Your task to perform on an android device: find photos in the google photos app Image 0: 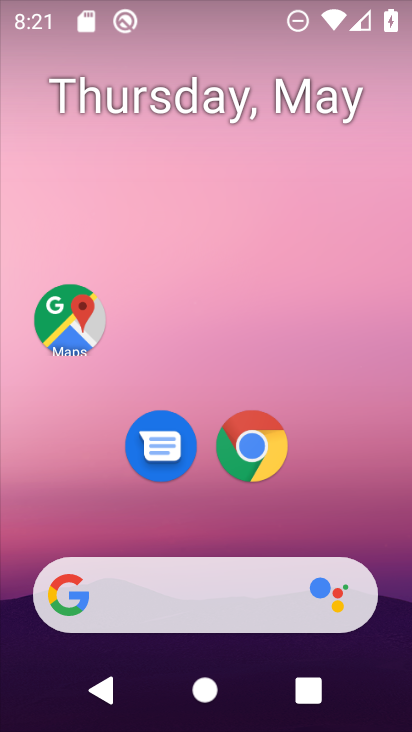
Step 0: drag from (359, 485) to (360, 129)
Your task to perform on an android device: find photos in the google photos app Image 1: 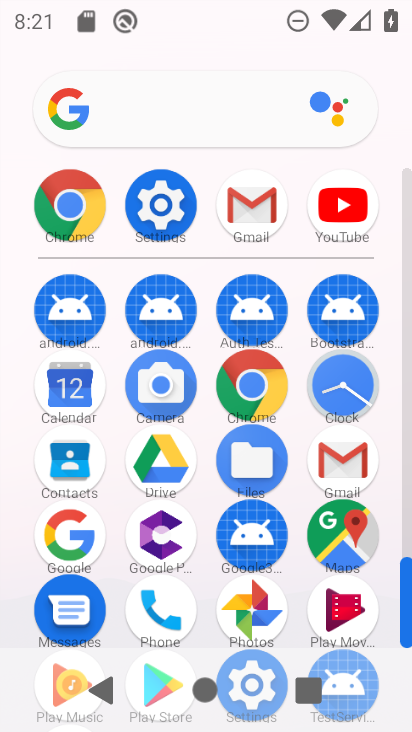
Step 1: click (262, 604)
Your task to perform on an android device: find photos in the google photos app Image 2: 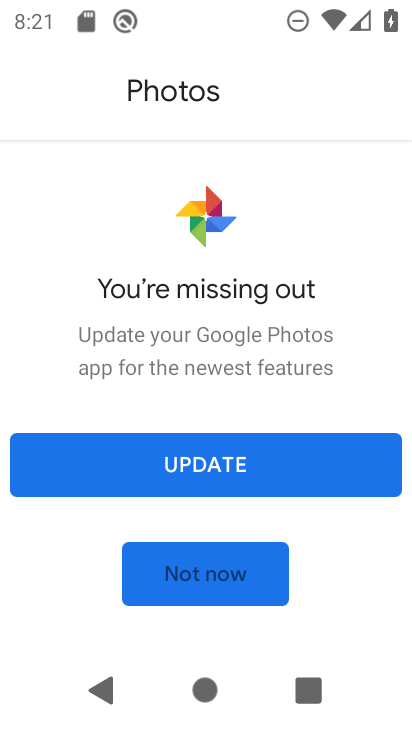
Step 2: click (226, 465)
Your task to perform on an android device: find photos in the google photos app Image 3: 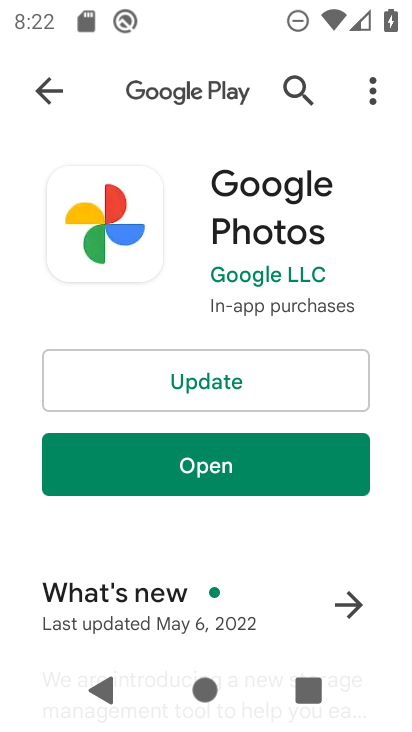
Step 3: click (226, 384)
Your task to perform on an android device: find photos in the google photos app Image 4: 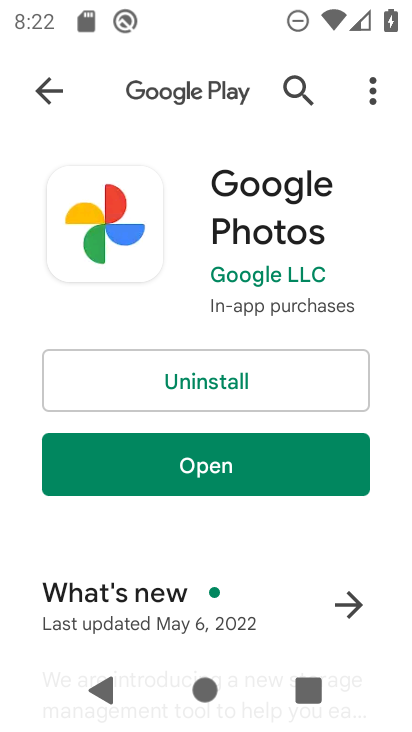
Step 4: click (222, 463)
Your task to perform on an android device: find photos in the google photos app Image 5: 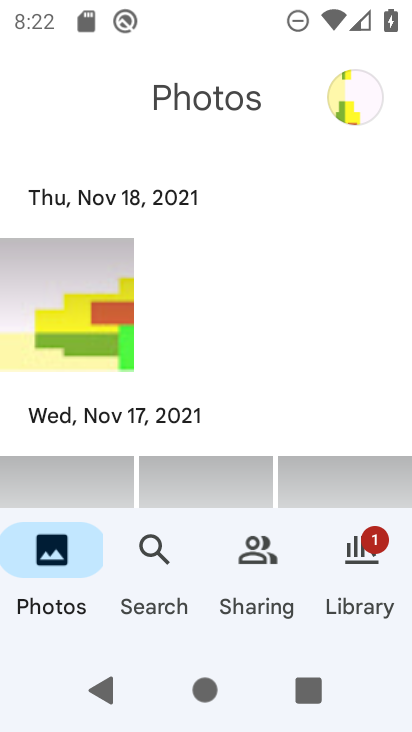
Step 5: task complete